Your task to perform on an android device: Open Yahoo.com Image 0: 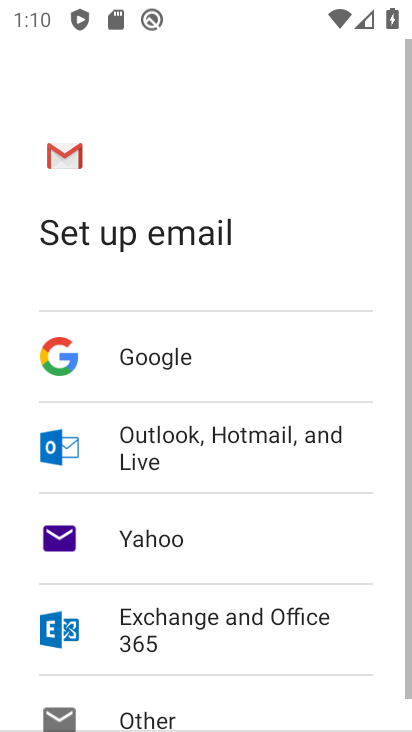
Step 0: press home button
Your task to perform on an android device: Open Yahoo.com Image 1: 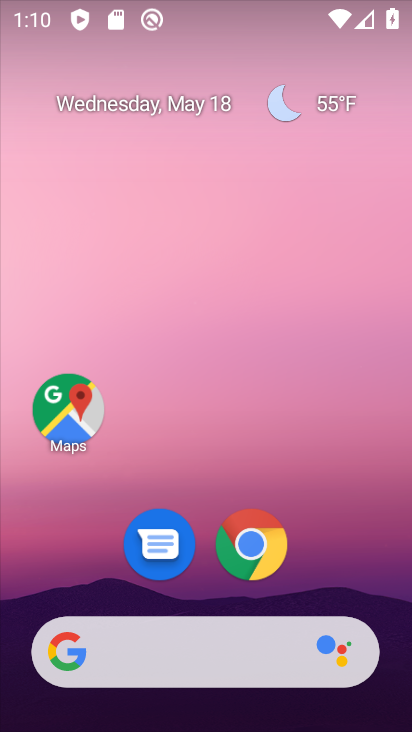
Step 1: click (246, 545)
Your task to perform on an android device: Open Yahoo.com Image 2: 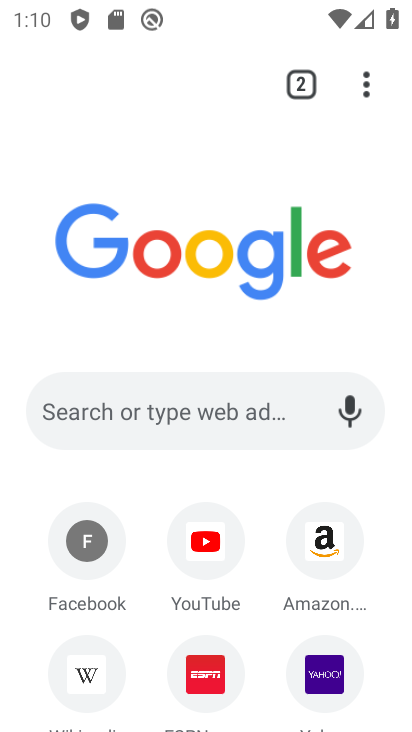
Step 2: click (316, 667)
Your task to perform on an android device: Open Yahoo.com Image 3: 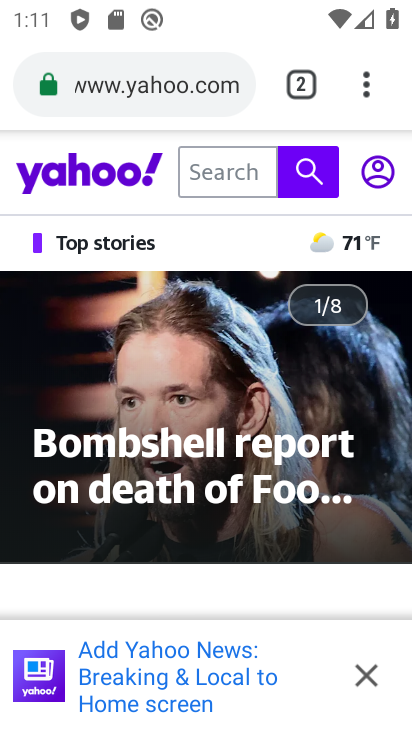
Step 3: task complete